Your task to perform on an android device: toggle show notifications on the lock screen Image 0: 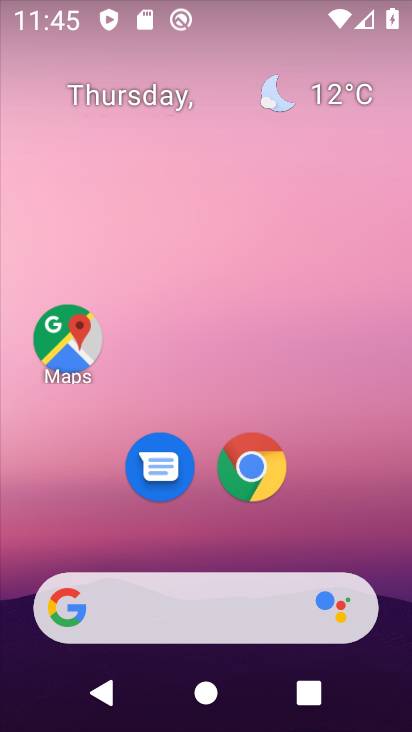
Step 0: drag from (372, 483) to (409, 112)
Your task to perform on an android device: toggle show notifications on the lock screen Image 1: 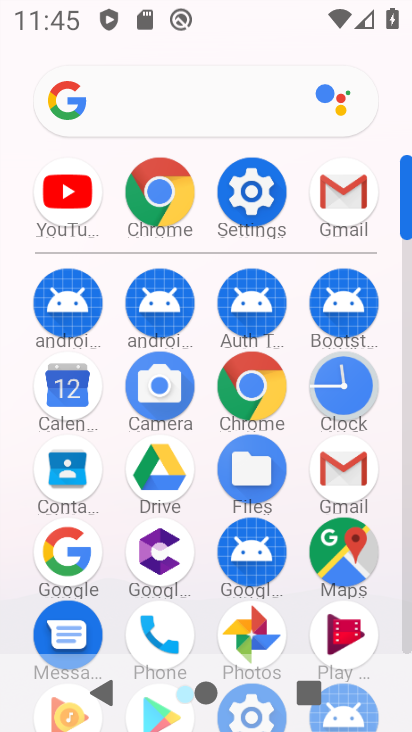
Step 1: click (237, 201)
Your task to perform on an android device: toggle show notifications on the lock screen Image 2: 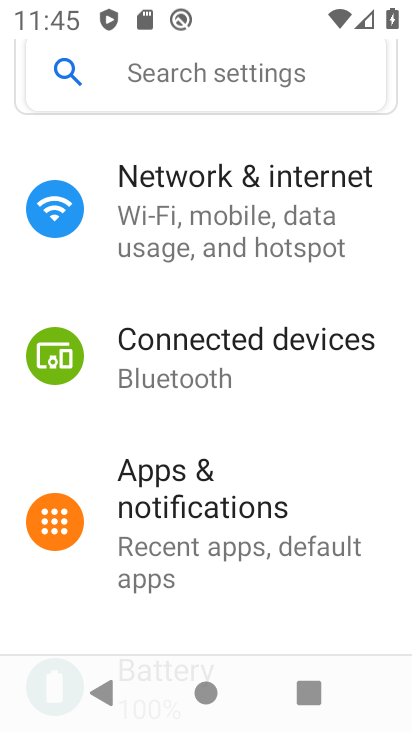
Step 2: click (209, 517)
Your task to perform on an android device: toggle show notifications on the lock screen Image 3: 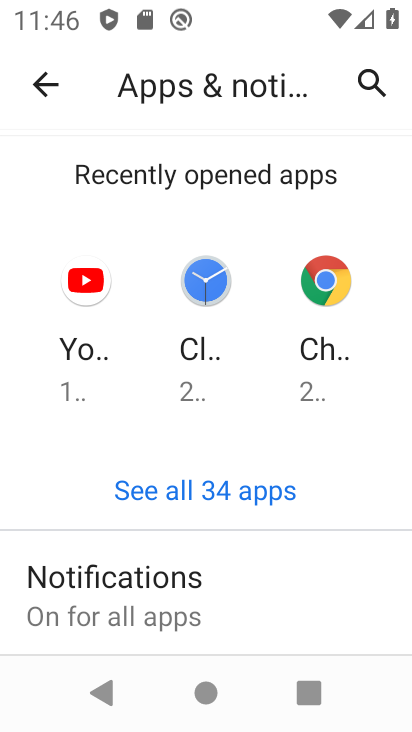
Step 3: drag from (141, 587) to (177, 528)
Your task to perform on an android device: toggle show notifications on the lock screen Image 4: 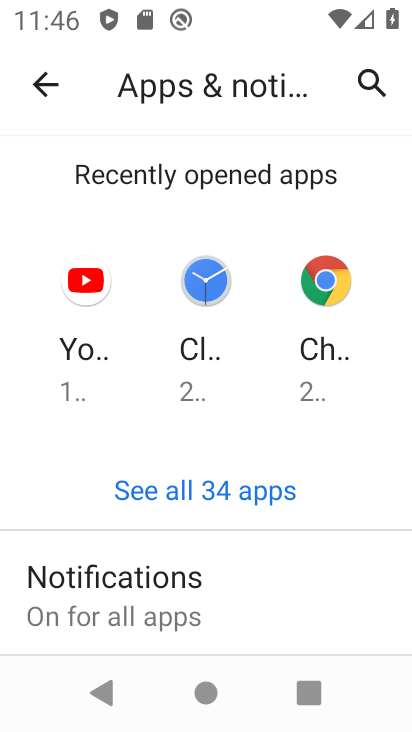
Step 4: click (131, 602)
Your task to perform on an android device: toggle show notifications on the lock screen Image 5: 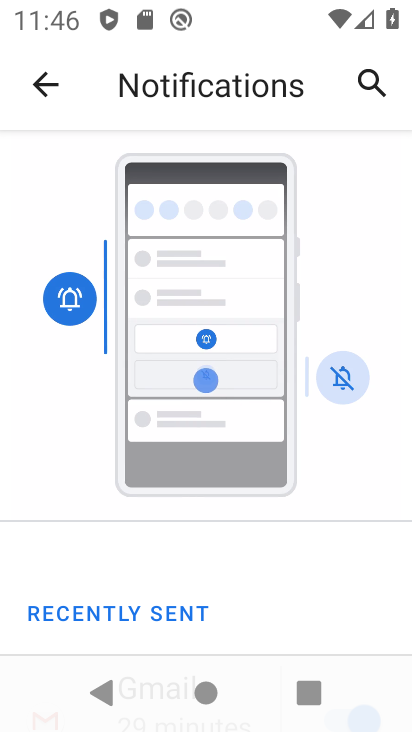
Step 5: drag from (253, 524) to (386, 22)
Your task to perform on an android device: toggle show notifications on the lock screen Image 6: 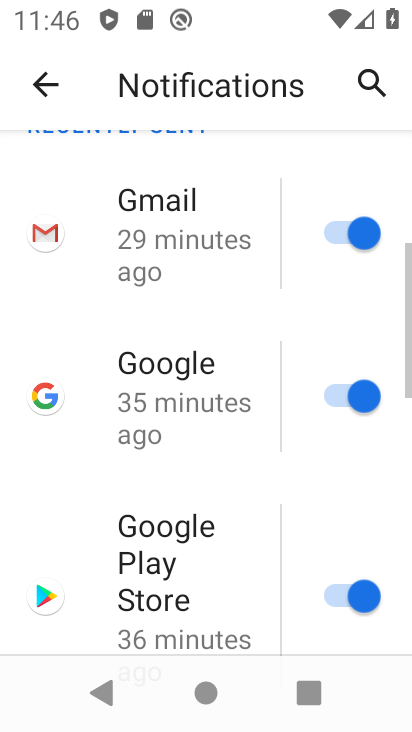
Step 6: drag from (141, 528) to (222, 152)
Your task to perform on an android device: toggle show notifications on the lock screen Image 7: 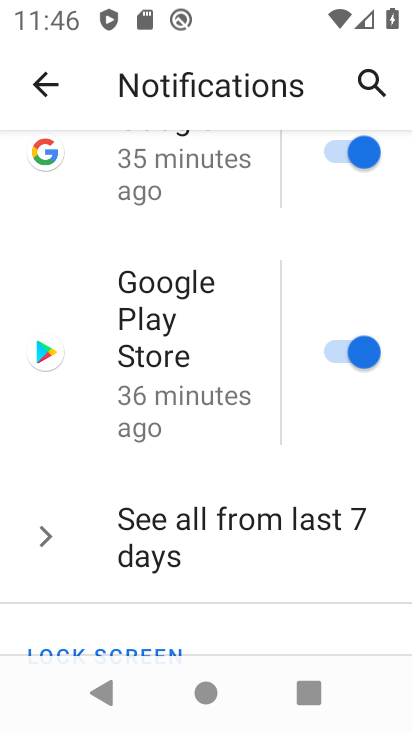
Step 7: drag from (138, 529) to (200, 211)
Your task to perform on an android device: toggle show notifications on the lock screen Image 8: 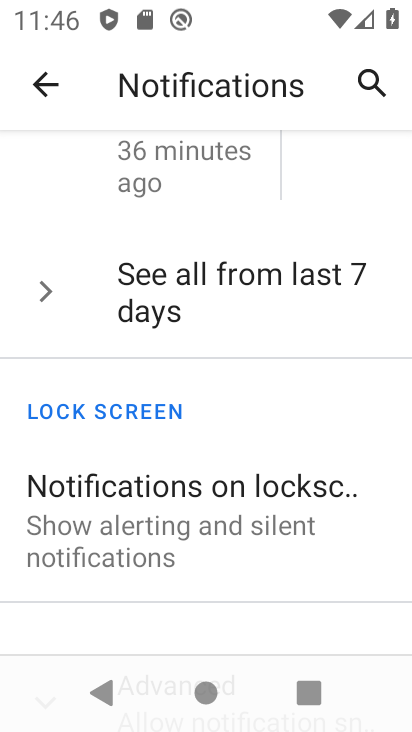
Step 8: click (128, 478)
Your task to perform on an android device: toggle show notifications on the lock screen Image 9: 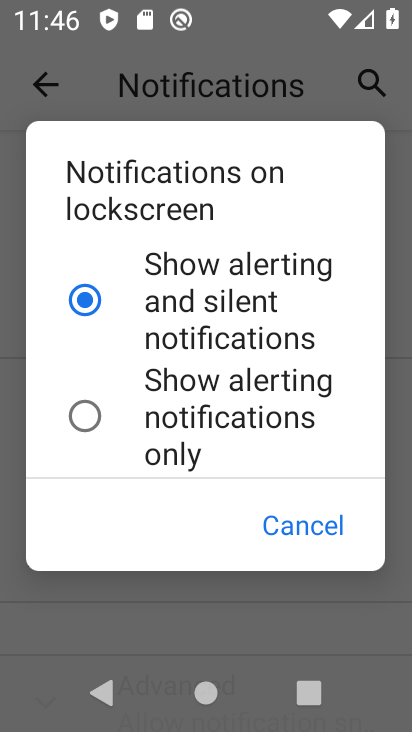
Step 9: click (91, 408)
Your task to perform on an android device: toggle show notifications on the lock screen Image 10: 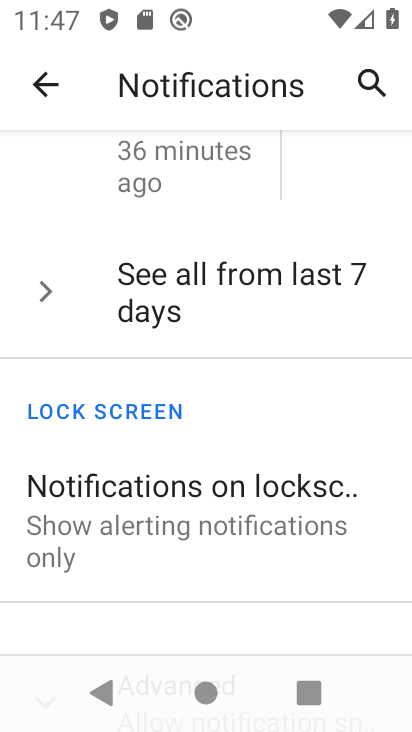
Step 10: task complete